Your task to perform on an android device: Go to CNN.com Image 0: 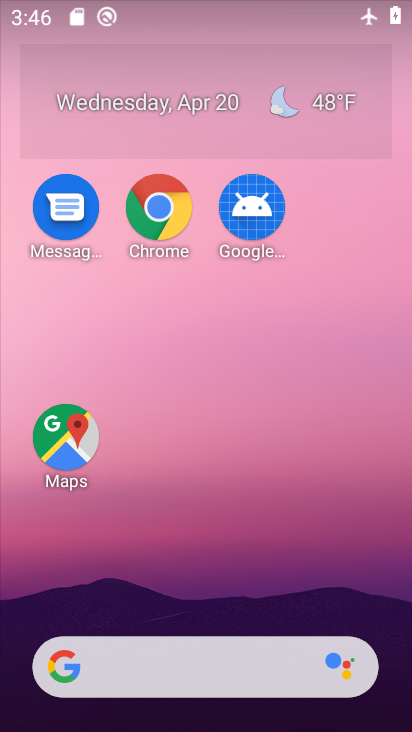
Step 0: drag from (189, 612) to (207, 278)
Your task to perform on an android device: Go to CNN.com Image 1: 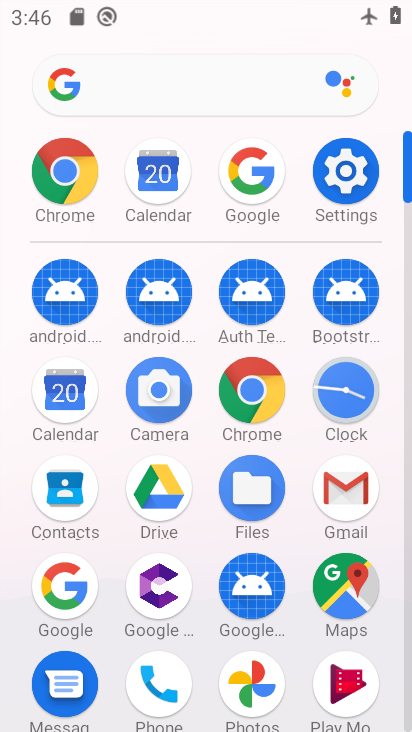
Step 1: click (261, 411)
Your task to perform on an android device: Go to CNN.com Image 2: 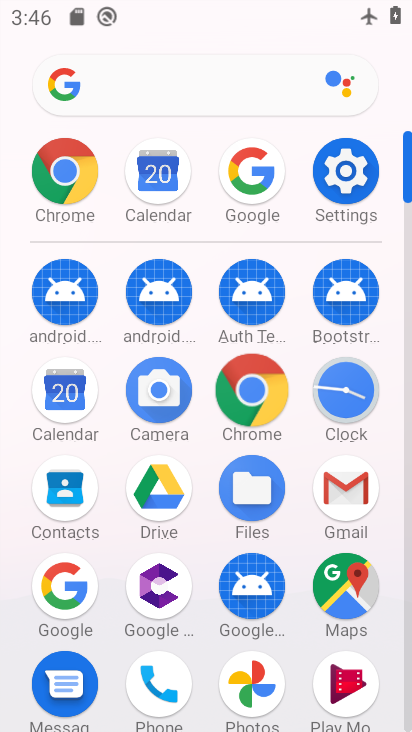
Step 2: click (261, 411)
Your task to perform on an android device: Go to CNN.com Image 3: 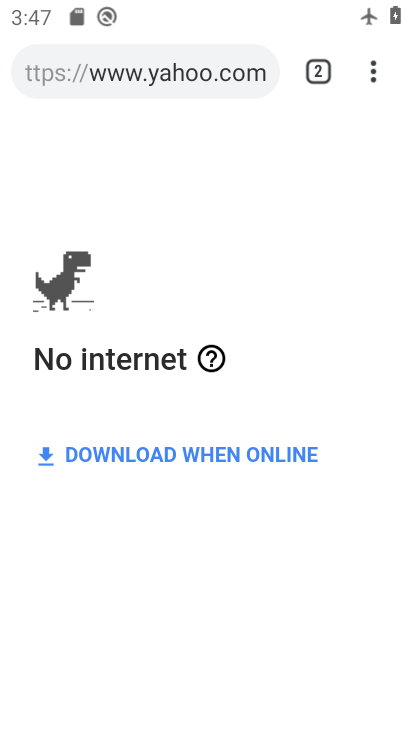
Step 3: task complete